Your task to perform on an android device: open app "Messages" (install if not already installed) Image 0: 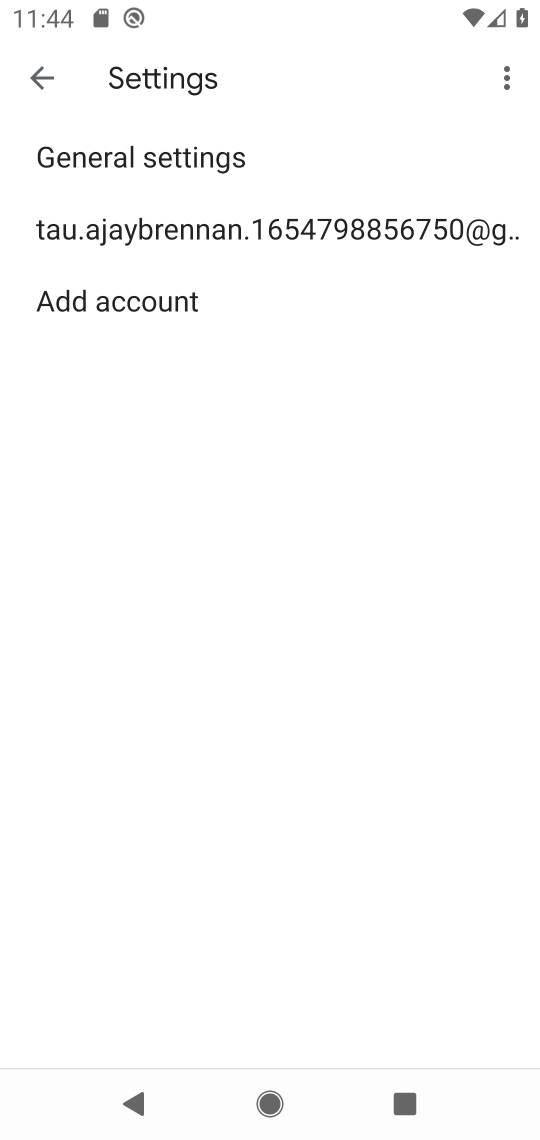
Step 0: press home button
Your task to perform on an android device: open app "Messages" (install if not already installed) Image 1: 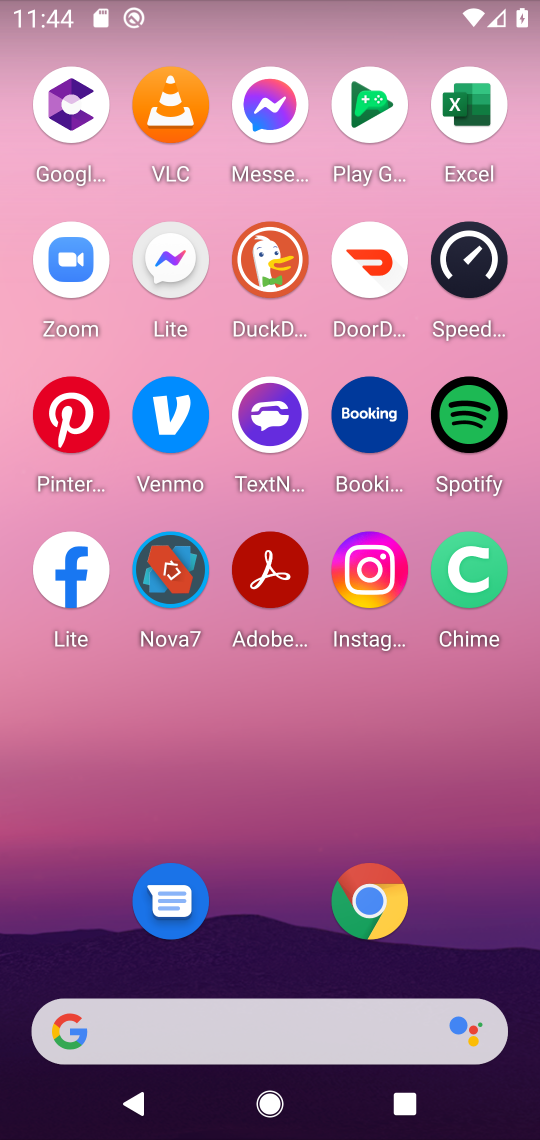
Step 1: click (178, 924)
Your task to perform on an android device: open app "Messages" (install if not already installed) Image 2: 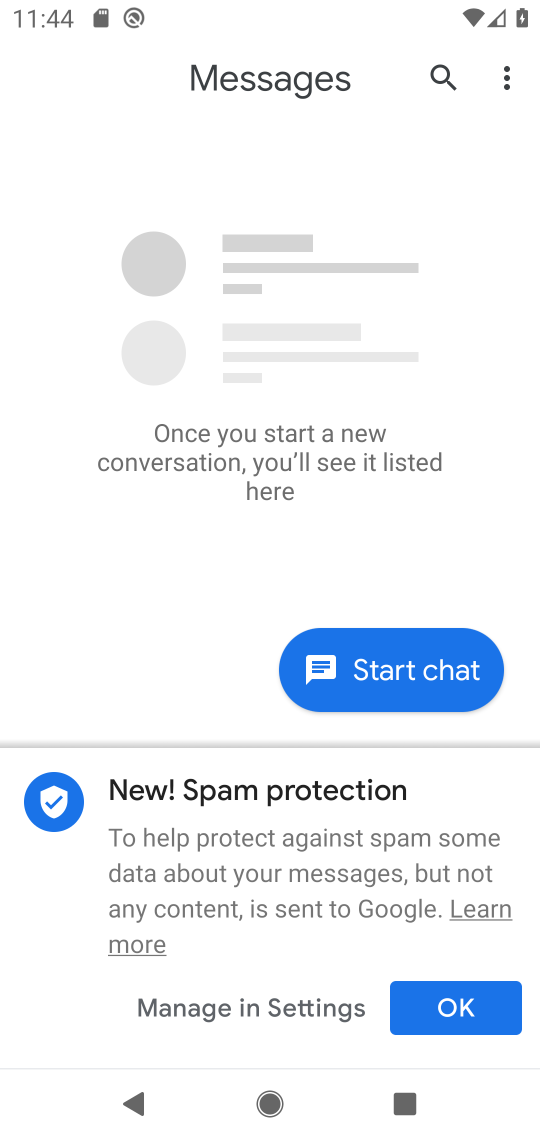
Step 2: task complete